Your task to perform on an android device: Open the calendar app, open the side menu, and click the "Day" option Image 0: 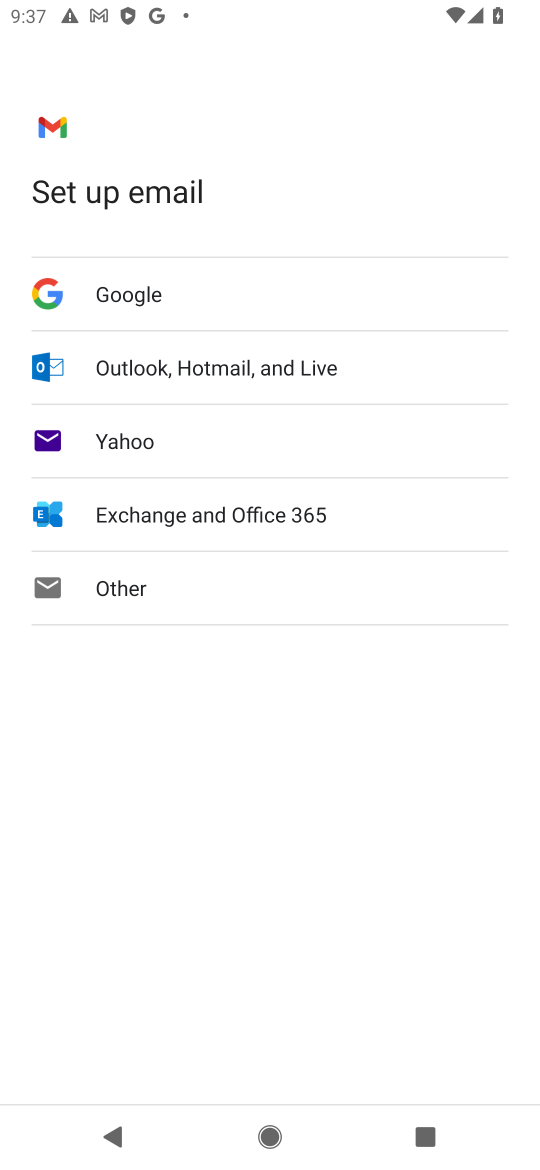
Step 0: press home button
Your task to perform on an android device: Open the calendar app, open the side menu, and click the "Day" option Image 1: 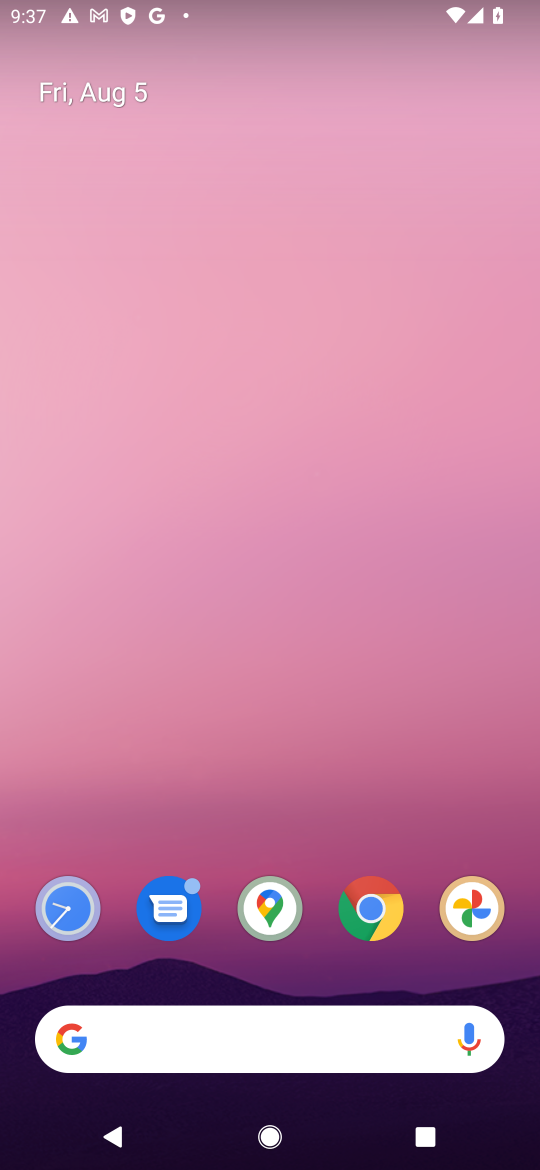
Step 1: drag from (305, 803) to (305, 25)
Your task to perform on an android device: Open the calendar app, open the side menu, and click the "Day" option Image 2: 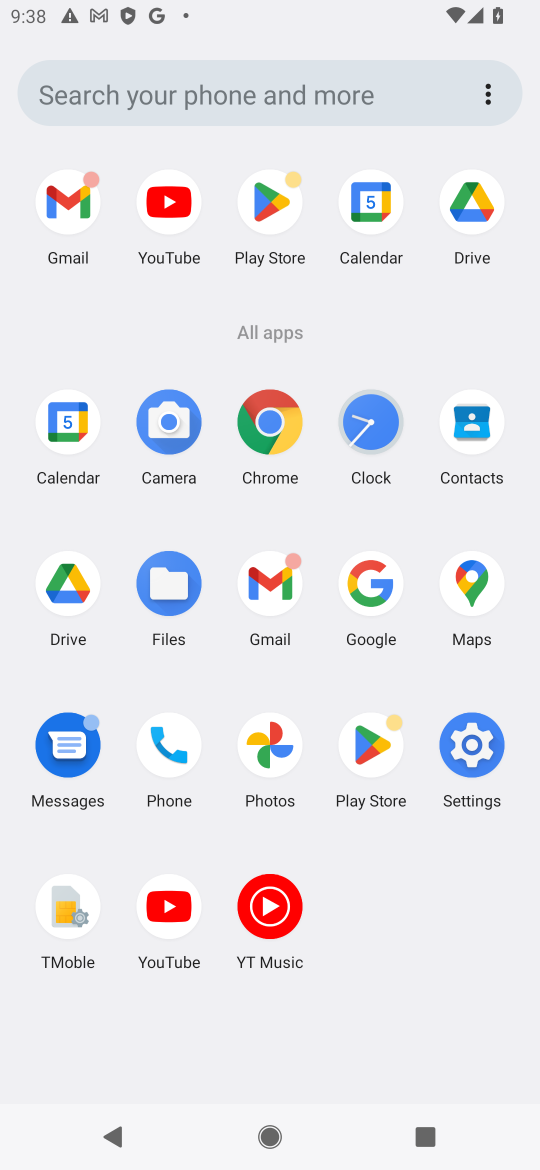
Step 2: click (65, 414)
Your task to perform on an android device: Open the calendar app, open the side menu, and click the "Day" option Image 3: 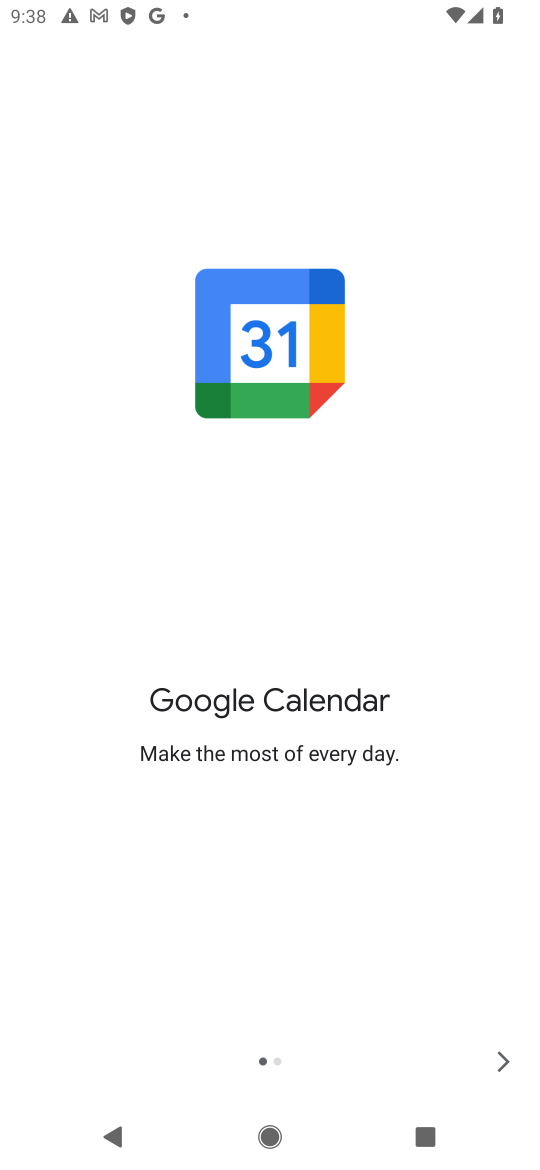
Step 3: click (498, 1062)
Your task to perform on an android device: Open the calendar app, open the side menu, and click the "Day" option Image 4: 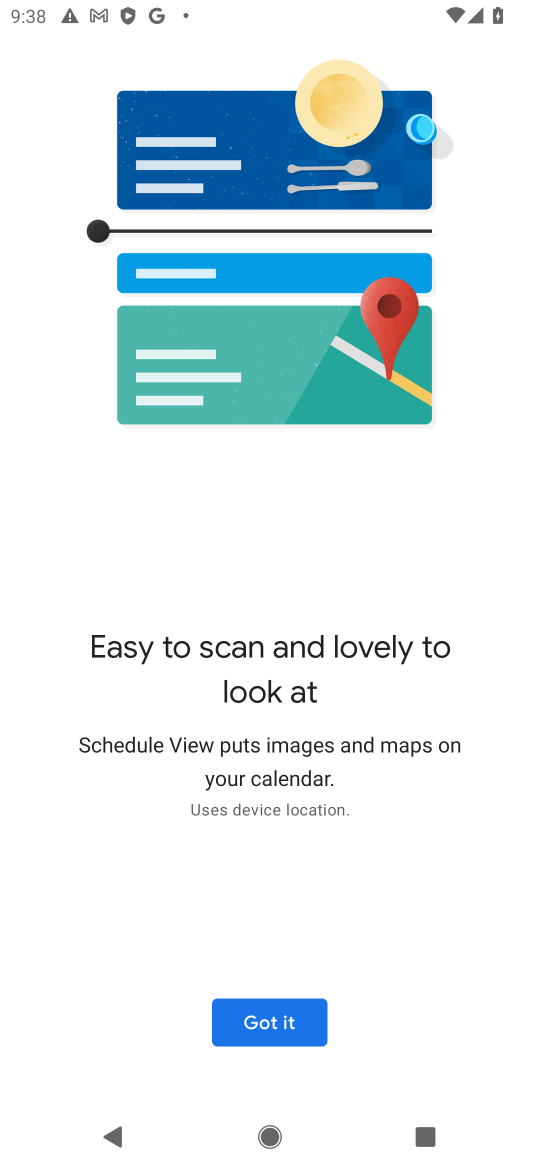
Step 4: click (263, 1020)
Your task to perform on an android device: Open the calendar app, open the side menu, and click the "Day" option Image 5: 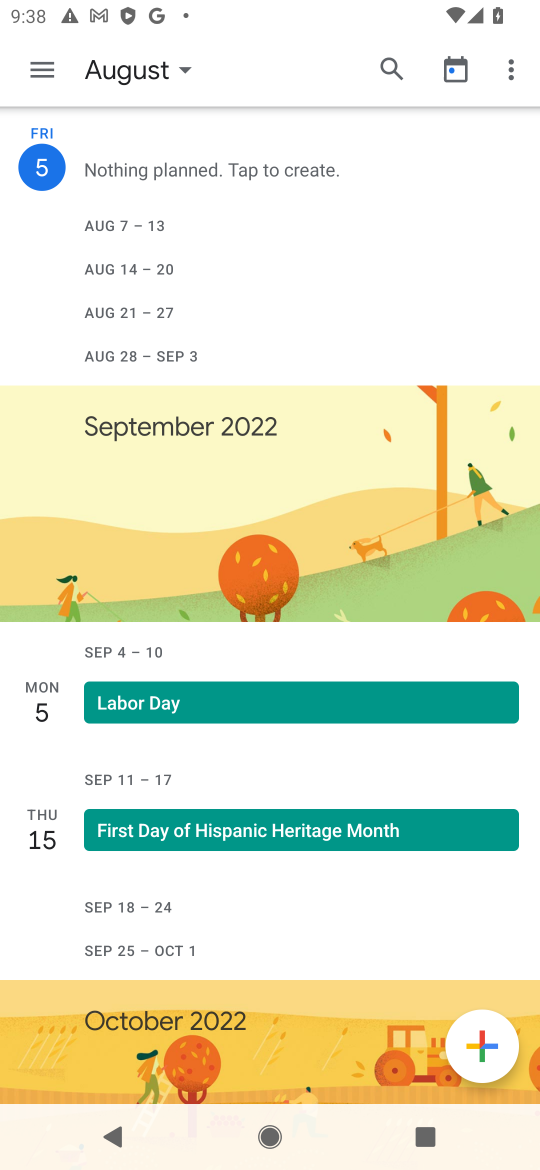
Step 5: click (40, 73)
Your task to perform on an android device: Open the calendar app, open the side menu, and click the "Day" option Image 6: 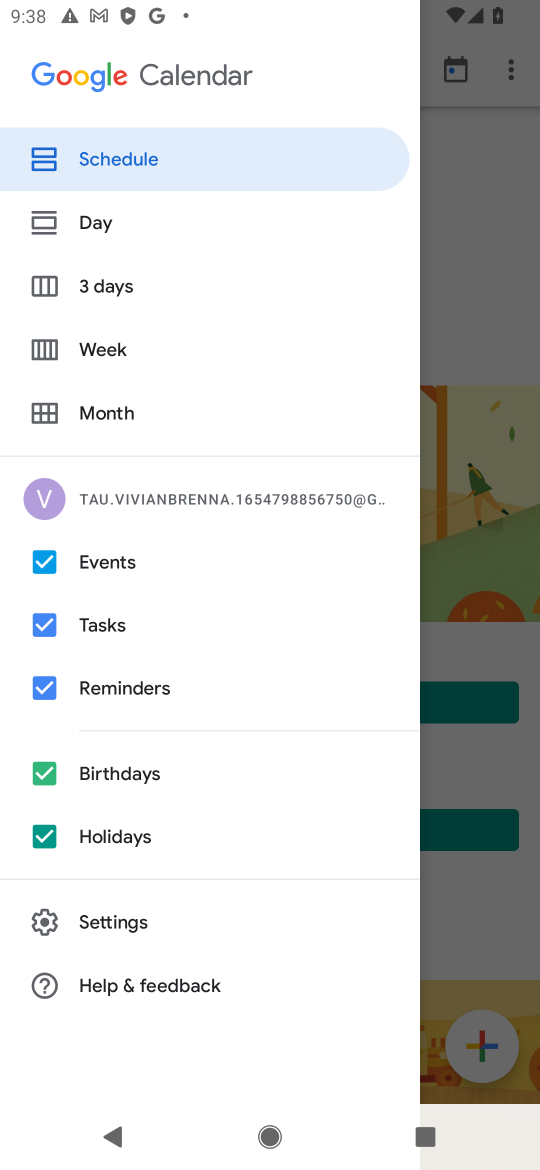
Step 6: click (86, 222)
Your task to perform on an android device: Open the calendar app, open the side menu, and click the "Day" option Image 7: 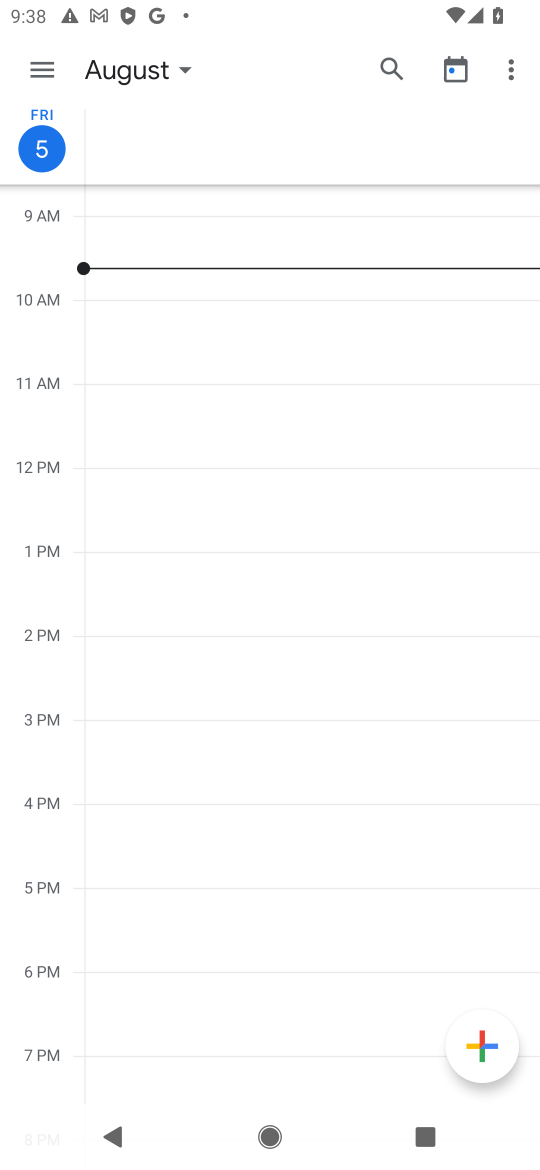
Step 7: task complete